Your task to perform on an android device: What's a good restaurant in San Diego? Image 0: 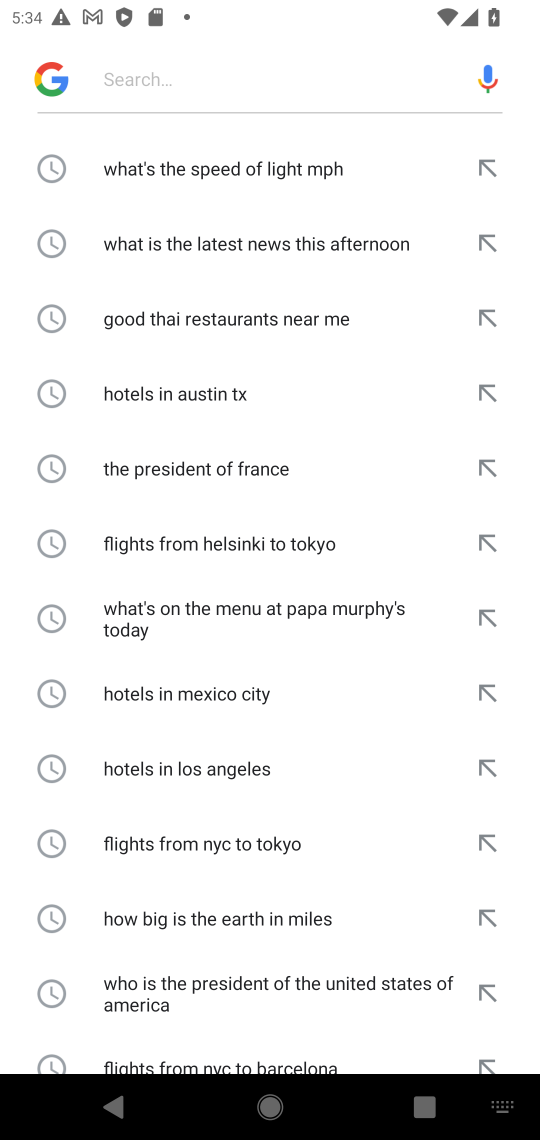
Step 0: press home button
Your task to perform on an android device: What's a good restaurant in San Diego? Image 1: 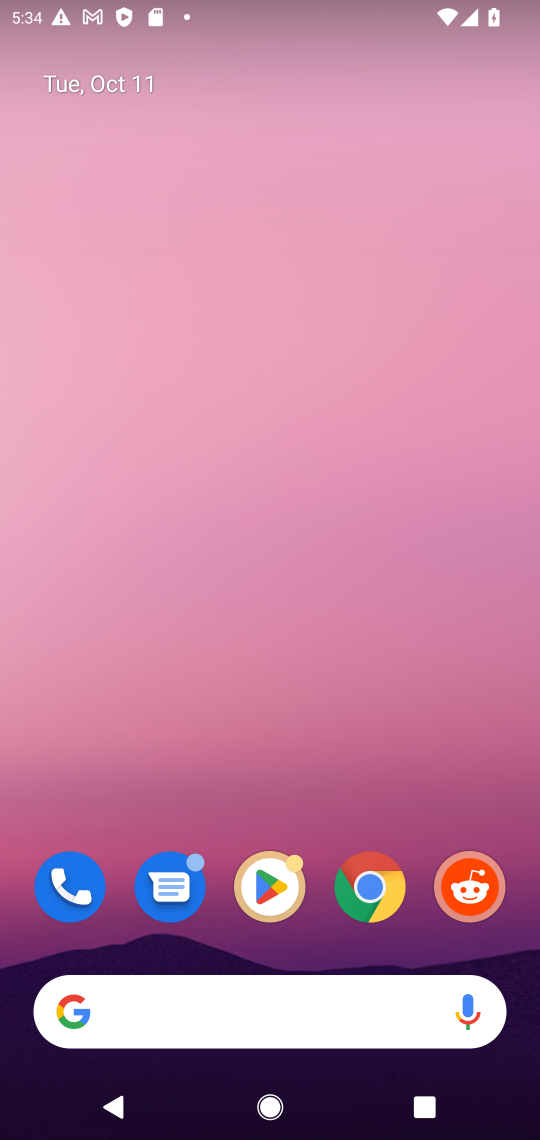
Step 1: click (222, 1023)
Your task to perform on an android device: What's a good restaurant in San Diego? Image 2: 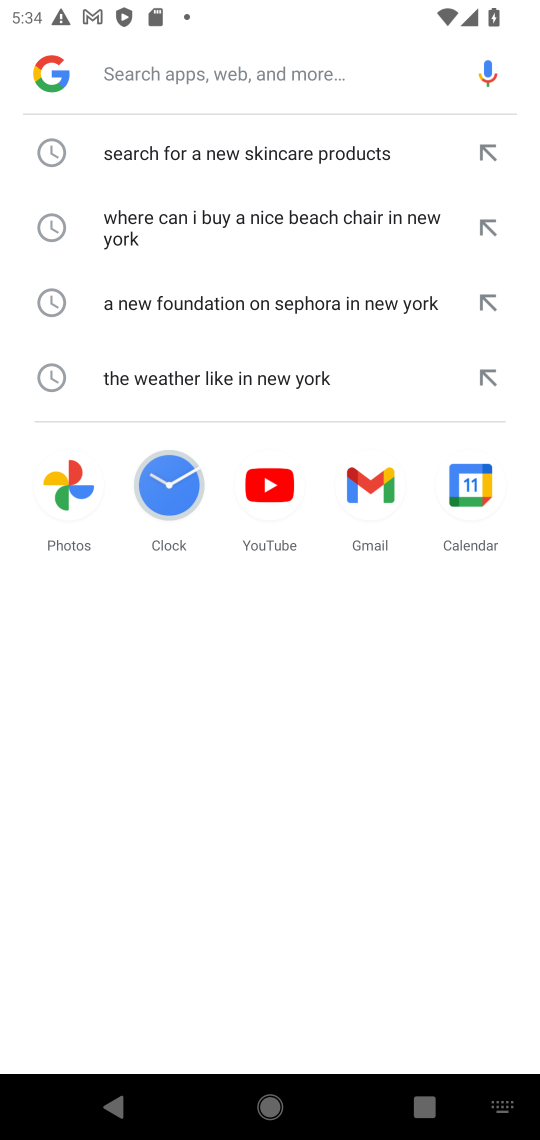
Step 2: type "What's a good restaurant in San Diego?"
Your task to perform on an android device: What's a good restaurant in San Diego? Image 3: 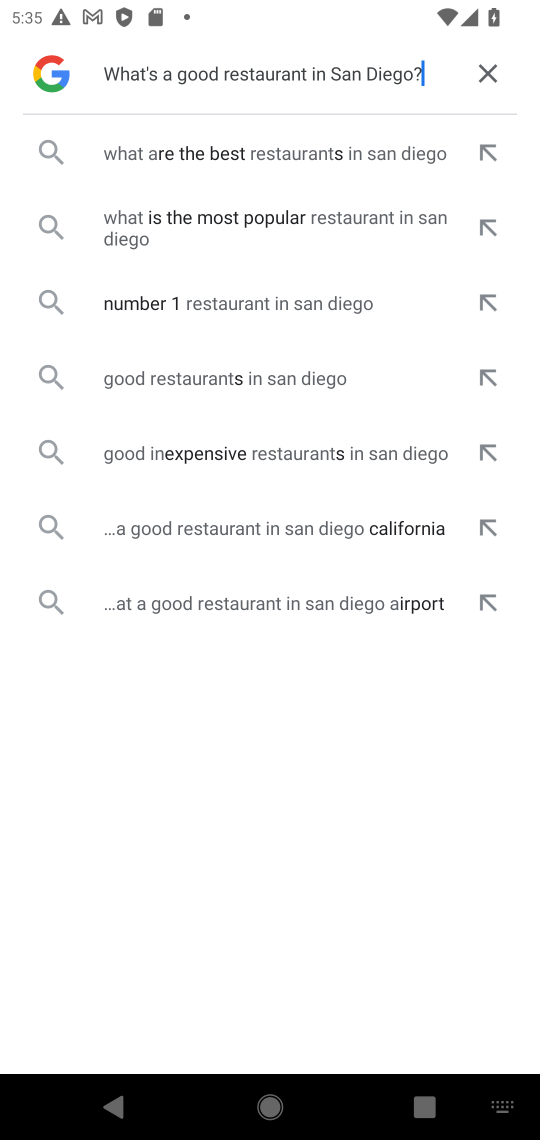
Step 3: click (300, 155)
Your task to perform on an android device: What's a good restaurant in San Diego? Image 4: 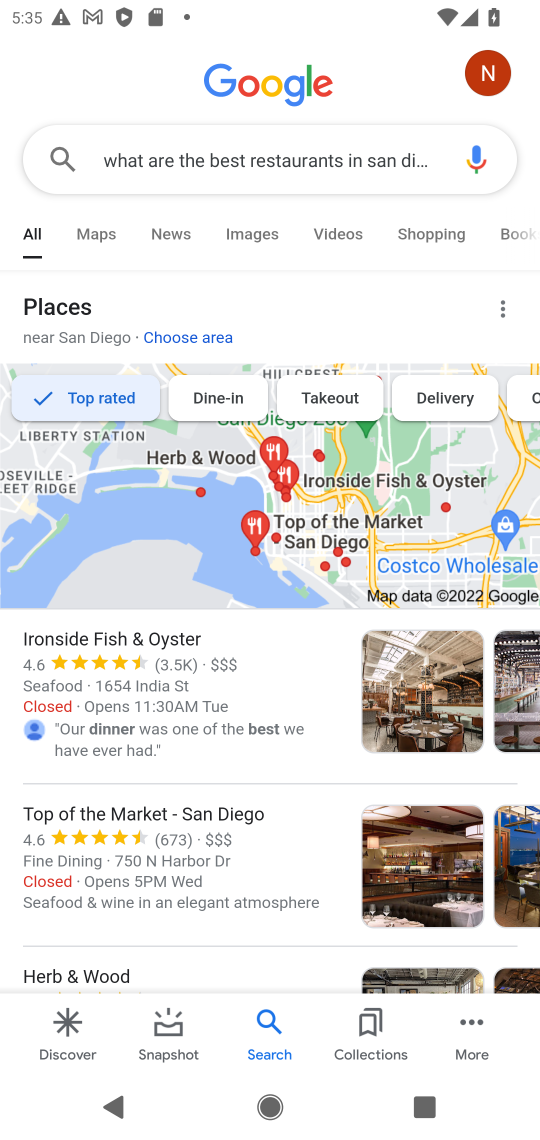
Step 4: drag from (250, 709) to (250, 208)
Your task to perform on an android device: What's a good restaurant in San Diego? Image 5: 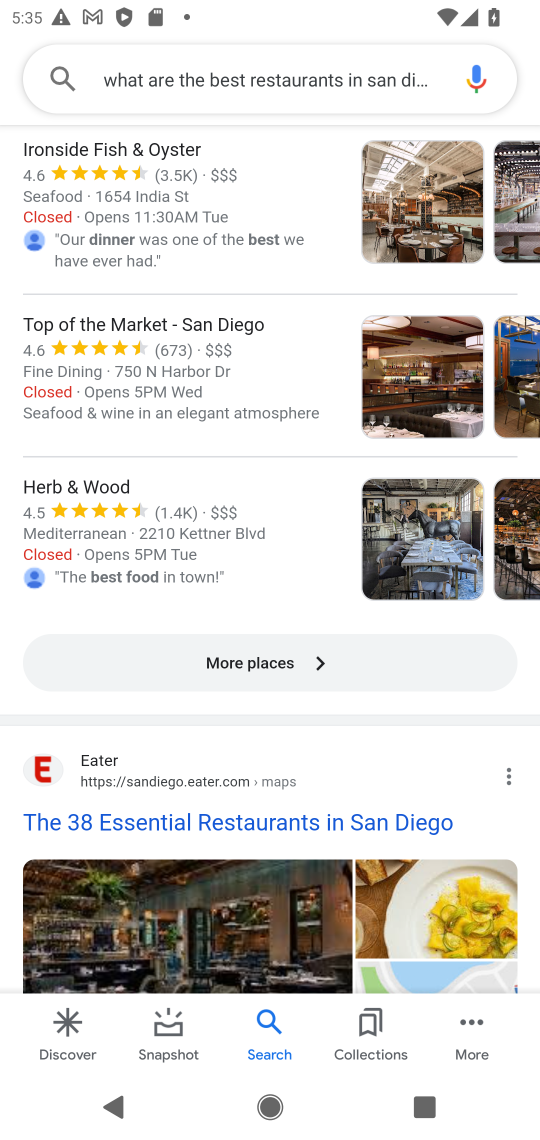
Step 5: click (283, 655)
Your task to perform on an android device: What's a good restaurant in San Diego? Image 6: 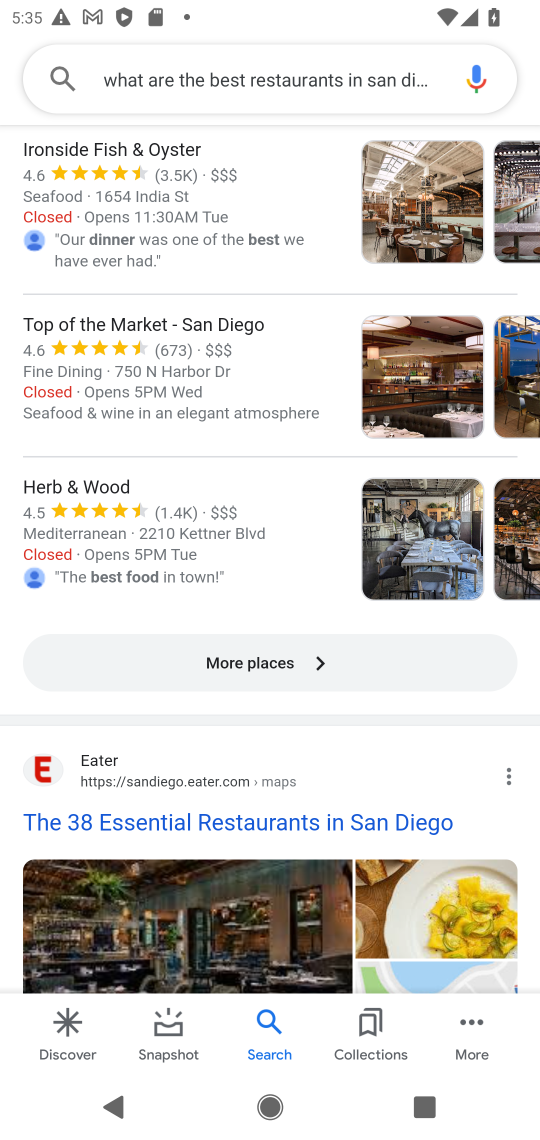
Step 6: click (283, 655)
Your task to perform on an android device: What's a good restaurant in San Diego? Image 7: 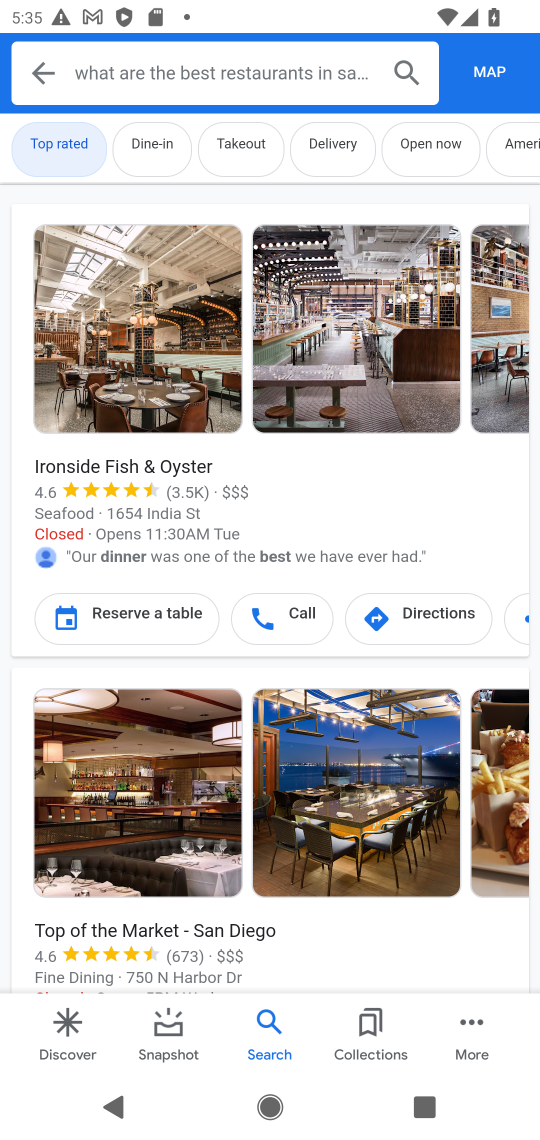
Step 7: task complete